Your task to perform on an android device: How much does a 2 bedroom apartment rent for in Denver? Image 0: 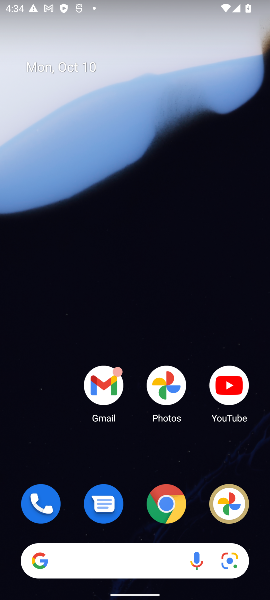
Step 0: drag from (93, 390) to (178, 93)
Your task to perform on an android device: How much does a 2 bedroom apartment rent for in Denver? Image 1: 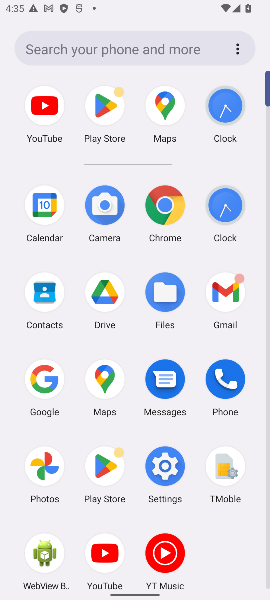
Step 1: click (151, 212)
Your task to perform on an android device: How much does a 2 bedroom apartment rent for in Denver? Image 2: 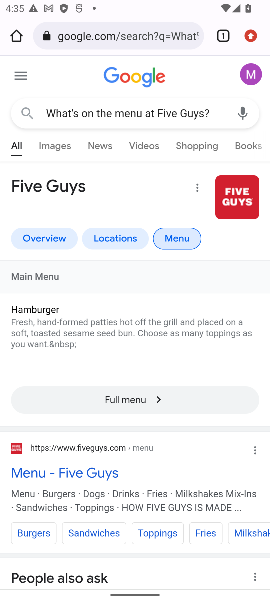
Step 2: click (143, 34)
Your task to perform on an android device: How much does a 2 bedroom apartment rent for in Denver? Image 3: 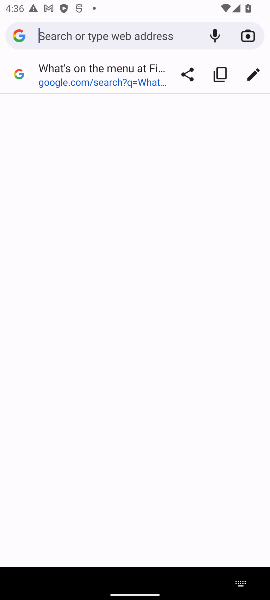
Step 3: type "How much does a 2 bedroom apartment rent for in Denver?"
Your task to perform on an android device: How much does a 2 bedroom apartment rent for in Denver? Image 4: 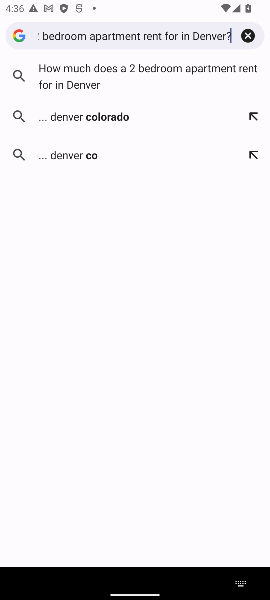
Step 4: press enter
Your task to perform on an android device: How much does a 2 bedroom apartment rent for in Denver? Image 5: 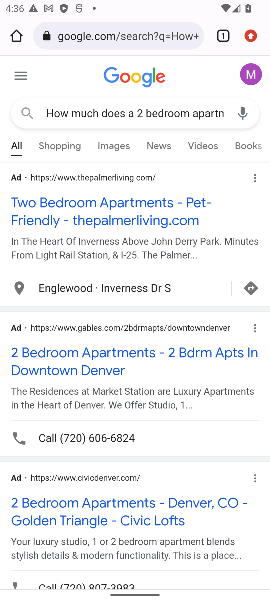
Step 5: click (46, 208)
Your task to perform on an android device: How much does a 2 bedroom apartment rent for in Denver? Image 6: 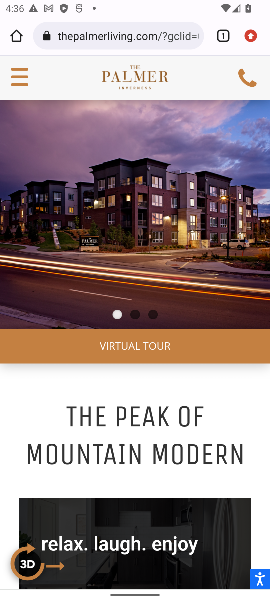
Step 6: task complete